Your task to perform on an android device: check google app version Image 0: 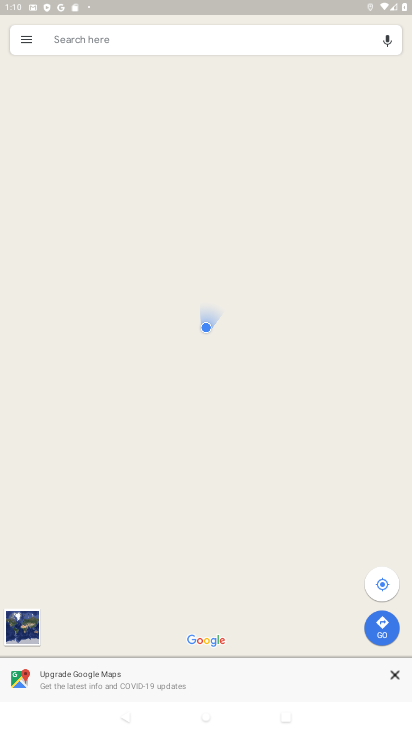
Step 0: press home button
Your task to perform on an android device: check google app version Image 1: 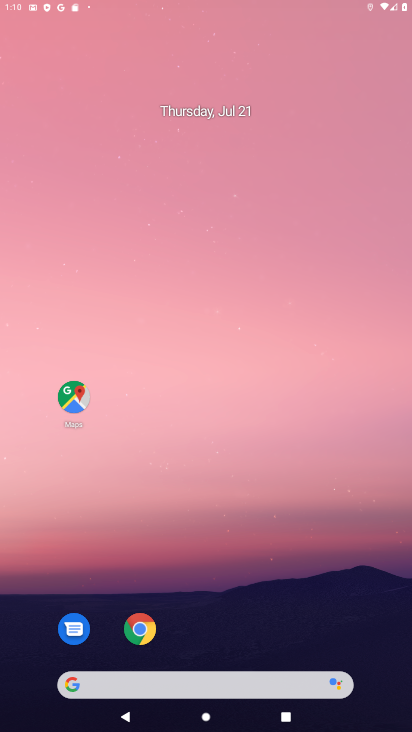
Step 1: drag from (219, 396) to (256, 87)
Your task to perform on an android device: check google app version Image 2: 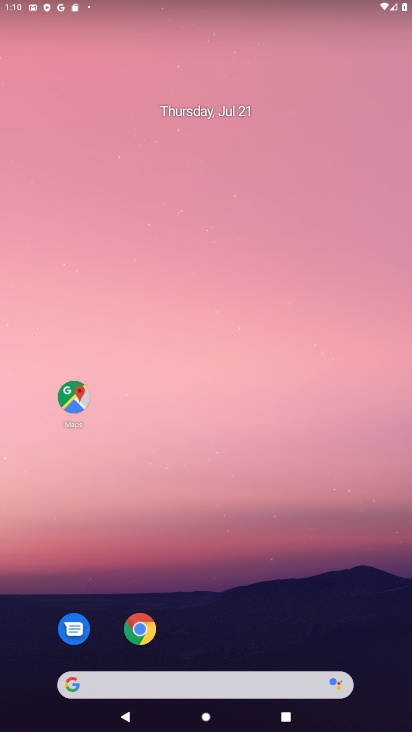
Step 2: drag from (181, 658) to (250, 73)
Your task to perform on an android device: check google app version Image 3: 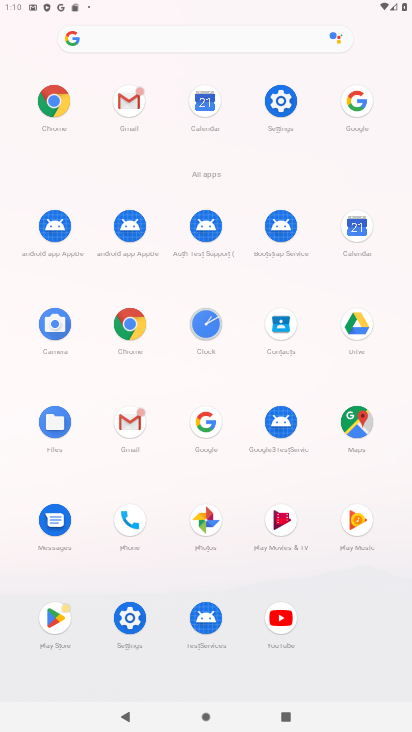
Step 3: click (206, 427)
Your task to perform on an android device: check google app version Image 4: 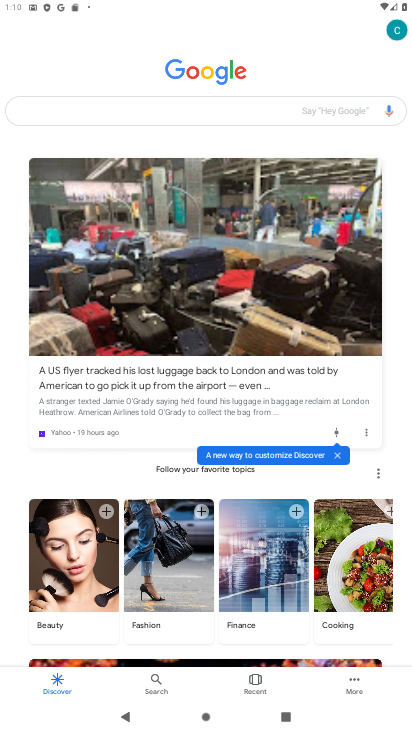
Step 4: click (362, 684)
Your task to perform on an android device: check google app version Image 5: 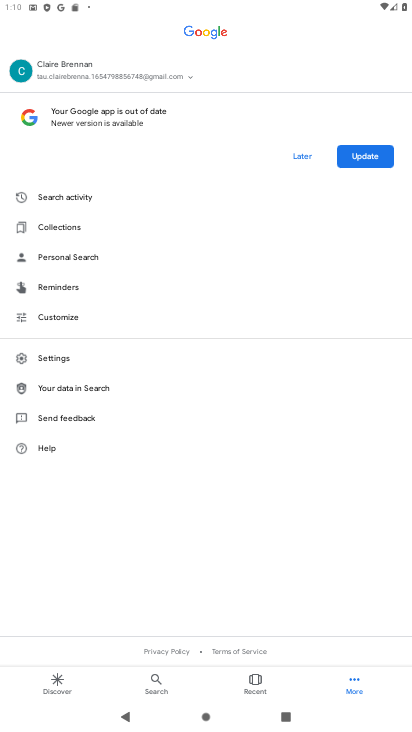
Step 5: click (64, 355)
Your task to perform on an android device: check google app version Image 6: 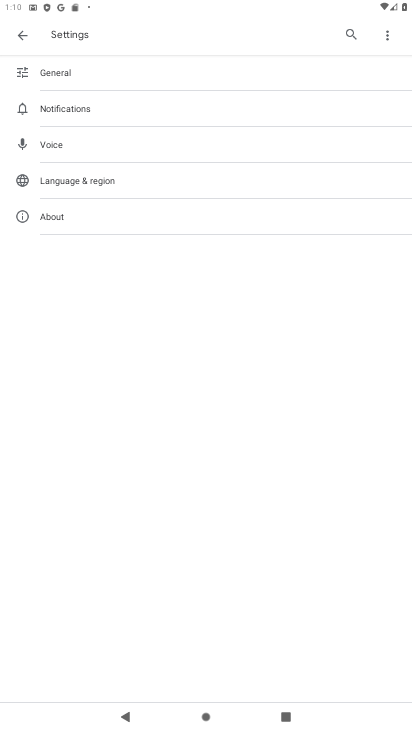
Step 6: click (56, 215)
Your task to perform on an android device: check google app version Image 7: 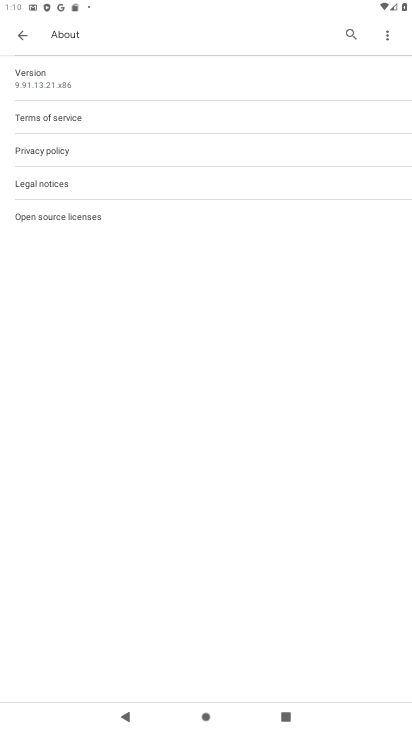
Step 7: click (34, 96)
Your task to perform on an android device: check google app version Image 8: 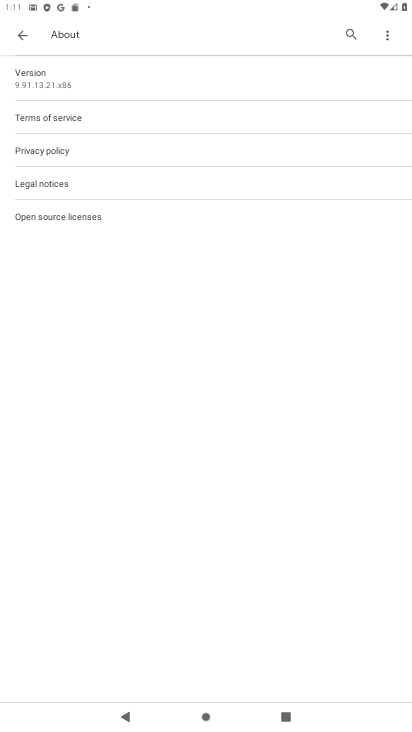
Step 8: task complete